Your task to perform on an android device: clear history in the chrome app Image 0: 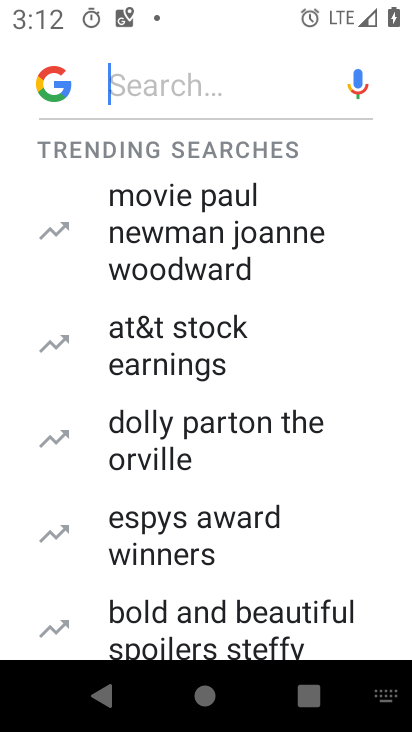
Step 0: press home button
Your task to perform on an android device: clear history in the chrome app Image 1: 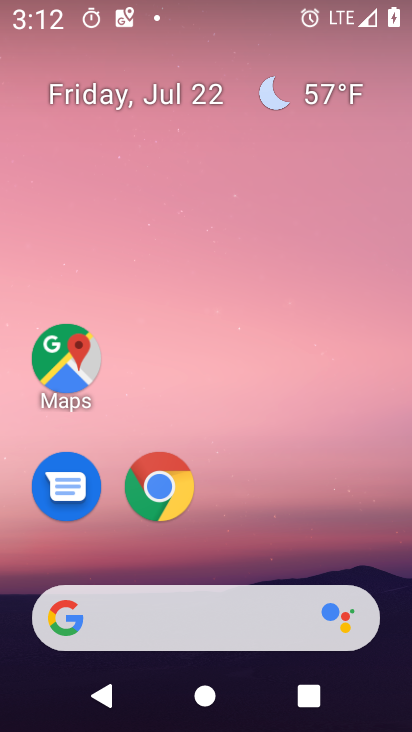
Step 1: drag from (365, 518) to (370, 107)
Your task to perform on an android device: clear history in the chrome app Image 2: 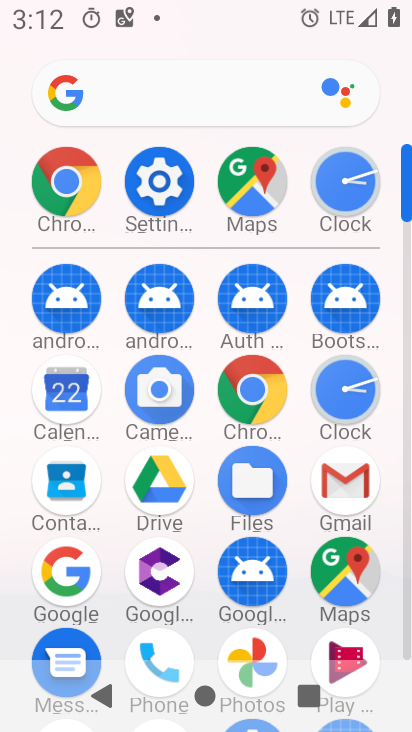
Step 2: click (258, 393)
Your task to perform on an android device: clear history in the chrome app Image 3: 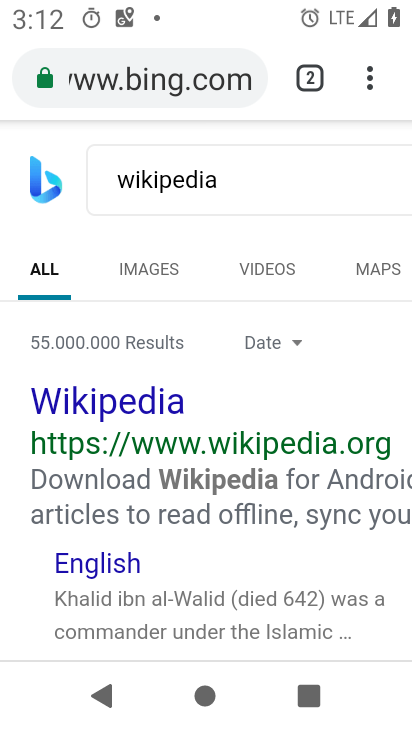
Step 3: click (369, 82)
Your task to perform on an android device: clear history in the chrome app Image 4: 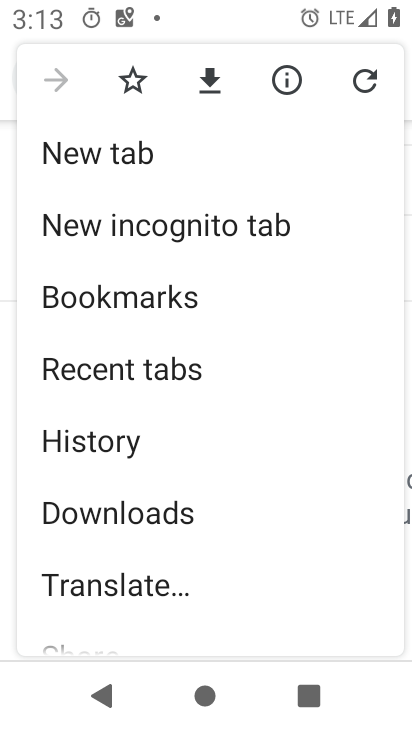
Step 4: click (204, 443)
Your task to perform on an android device: clear history in the chrome app Image 5: 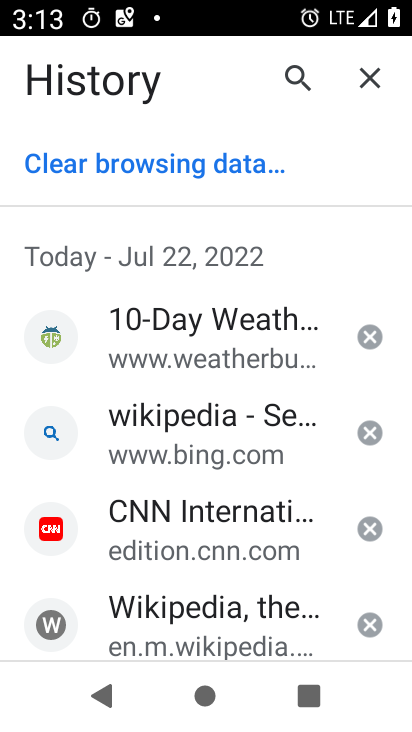
Step 5: click (209, 185)
Your task to perform on an android device: clear history in the chrome app Image 6: 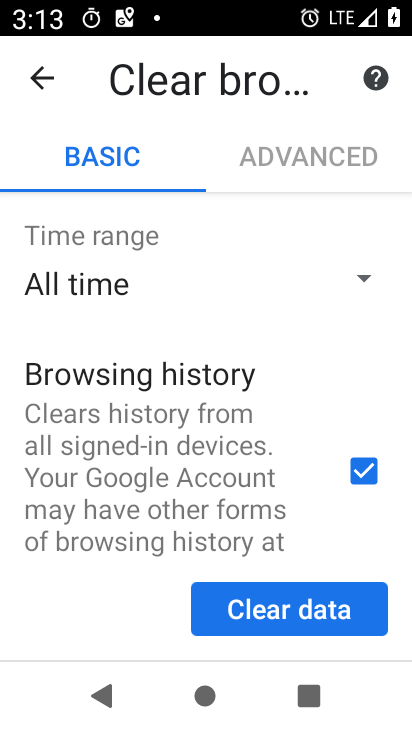
Step 6: click (290, 603)
Your task to perform on an android device: clear history in the chrome app Image 7: 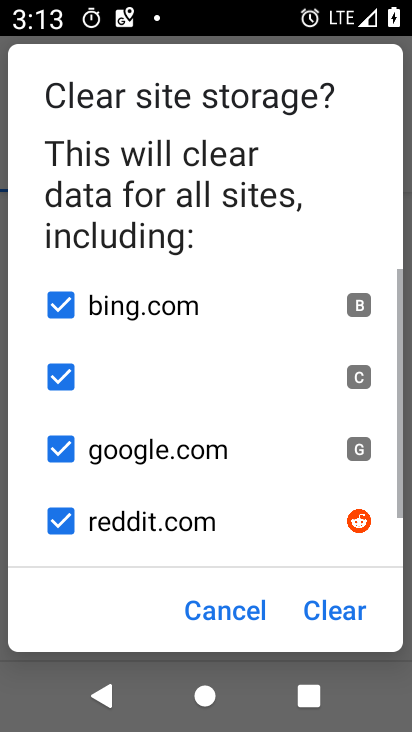
Step 7: click (323, 603)
Your task to perform on an android device: clear history in the chrome app Image 8: 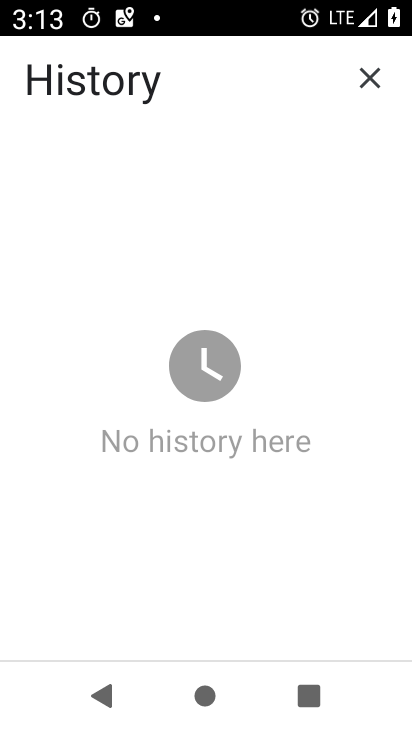
Step 8: task complete